Your task to perform on an android device: star an email in the gmail app Image 0: 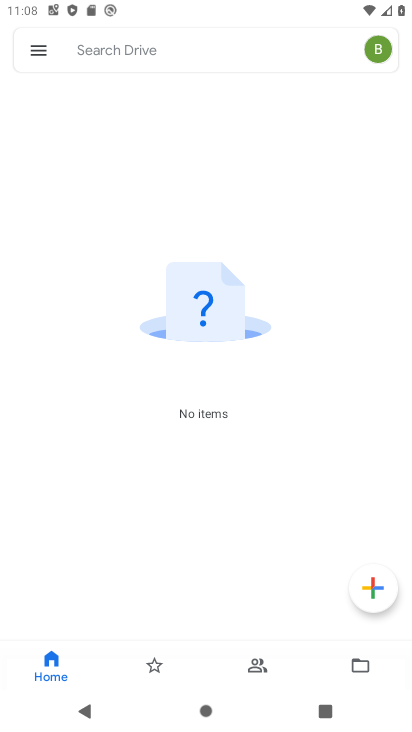
Step 0: press home button
Your task to perform on an android device: star an email in the gmail app Image 1: 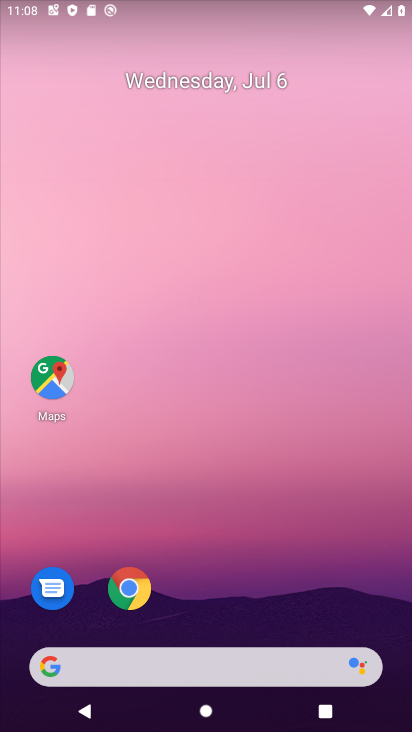
Step 1: drag from (246, 579) to (205, 293)
Your task to perform on an android device: star an email in the gmail app Image 2: 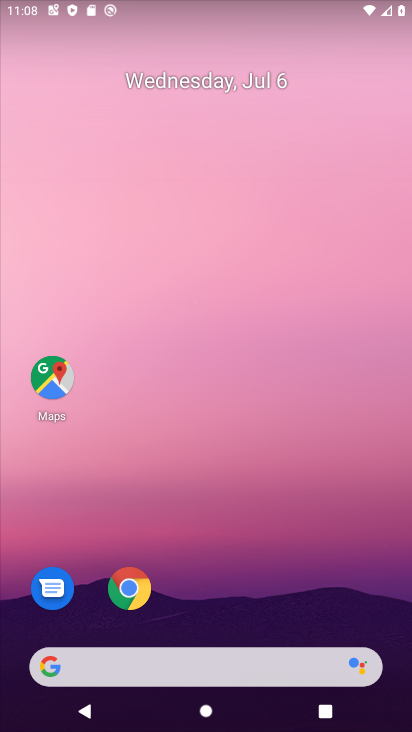
Step 2: drag from (225, 635) to (218, 225)
Your task to perform on an android device: star an email in the gmail app Image 3: 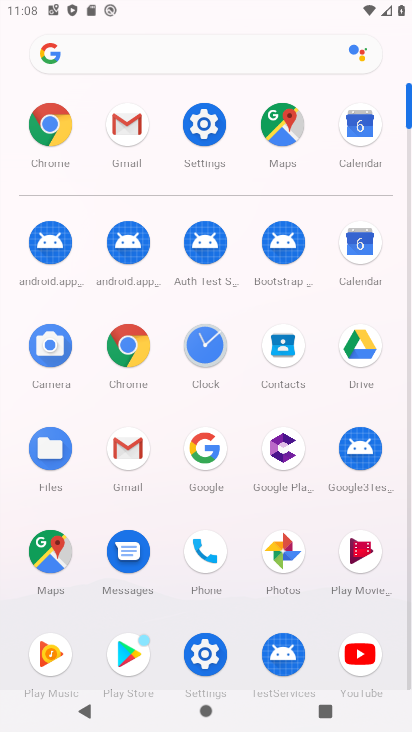
Step 3: click (110, 113)
Your task to perform on an android device: star an email in the gmail app Image 4: 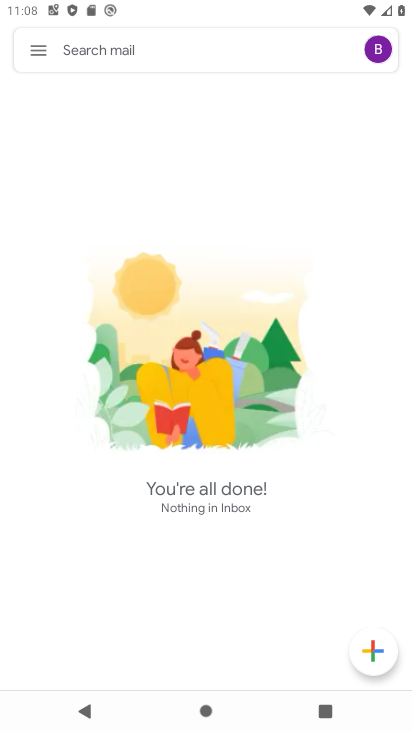
Step 4: click (27, 41)
Your task to perform on an android device: star an email in the gmail app Image 5: 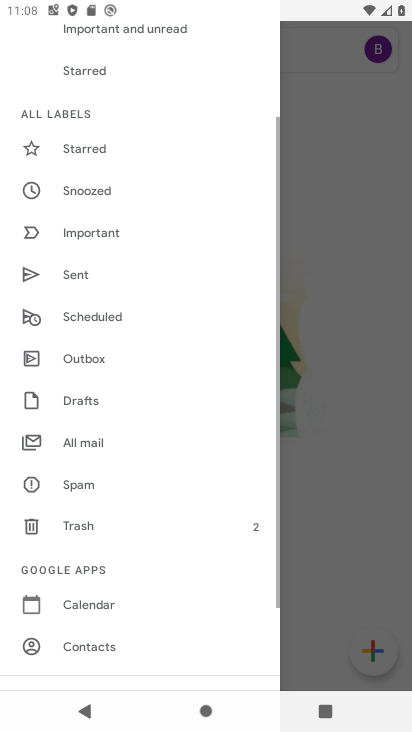
Step 5: click (310, 248)
Your task to perform on an android device: star an email in the gmail app Image 6: 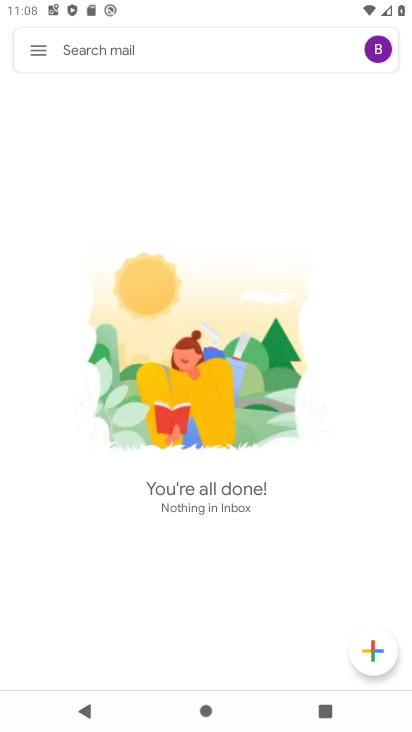
Step 6: click (16, 38)
Your task to perform on an android device: star an email in the gmail app Image 7: 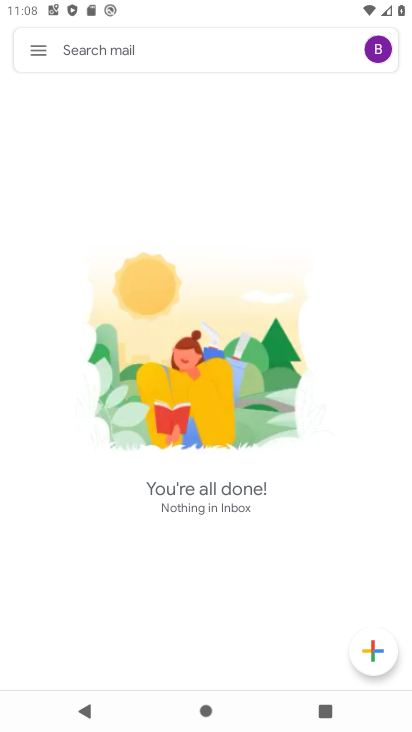
Step 7: click (37, 45)
Your task to perform on an android device: star an email in the gmail app Image 8: 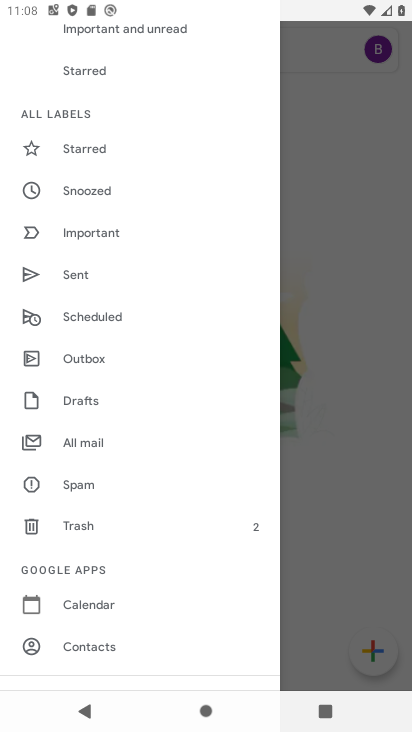
Step 8: click (78, 435)
Your task to perform on an android device: star an email in the gmail app Image 9: 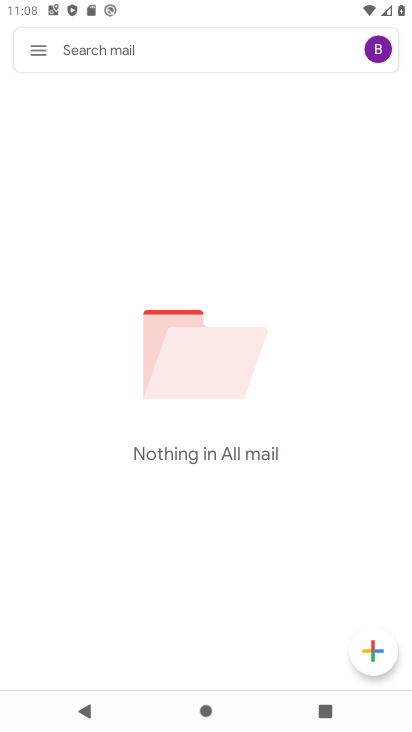
Step 9: task complete